Your task to perform on an android device: Open wifi settings Image 0: 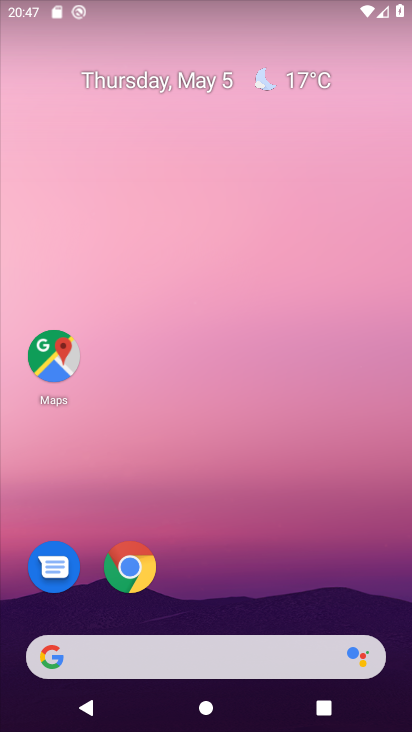
Step 0: drag from (322, 544) to (305, 18)
Your task to perform on an android device: Open wifi settings Image 1: 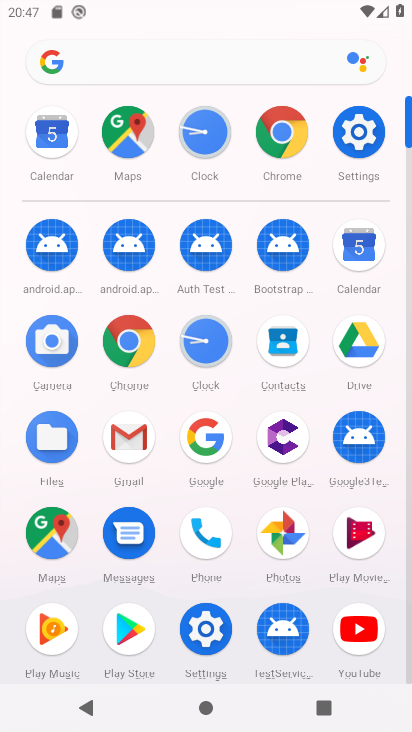
Step 1: click (359, 132)
Your task to perform on an android device: Open wifi settings Image 2: 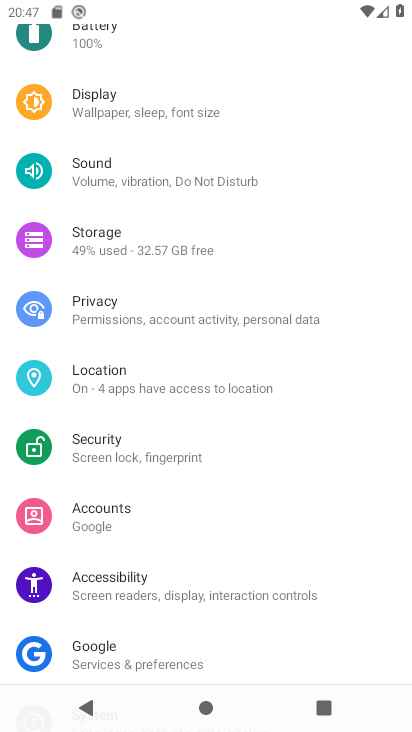
Step 2: drag from (259, 245) to (259, 687)
Your task to perform on an android device: Open wifi settings Image 3: 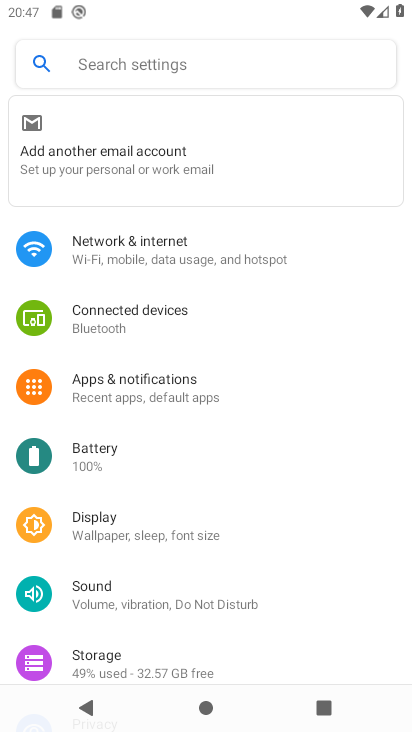
Step 3: click (179, 246)
Your task to perform on an android device: Open wifi settings Image 4: 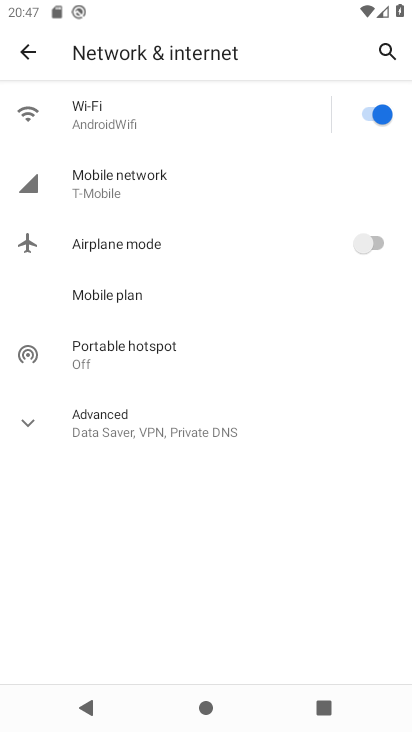
Step 4: click (197, 110)
Your task to perform on an android device: Open wifi settings Image 5: 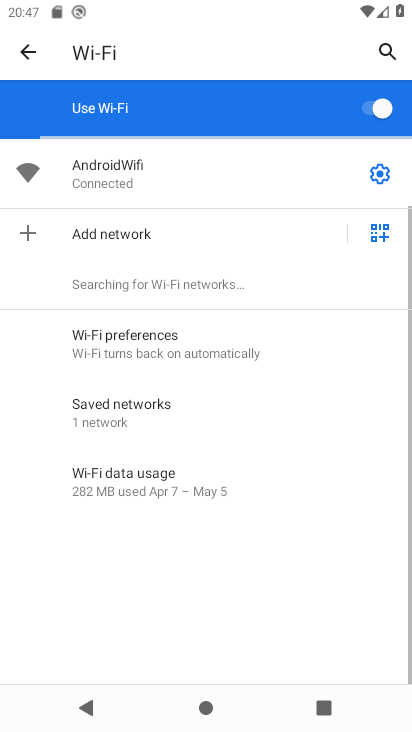
Step 5: task complete